Your task to perform on an android device: change the clock style Image 0: 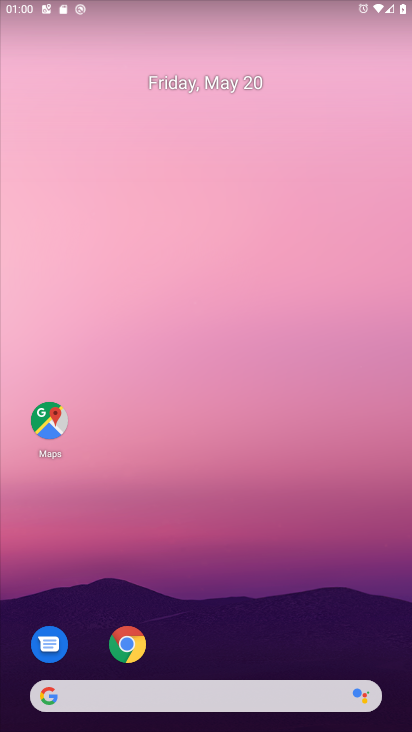
Step 0: drag from (212, 680) to (322, 297)
Your task to perform on an android device: change the clock style Image 1: 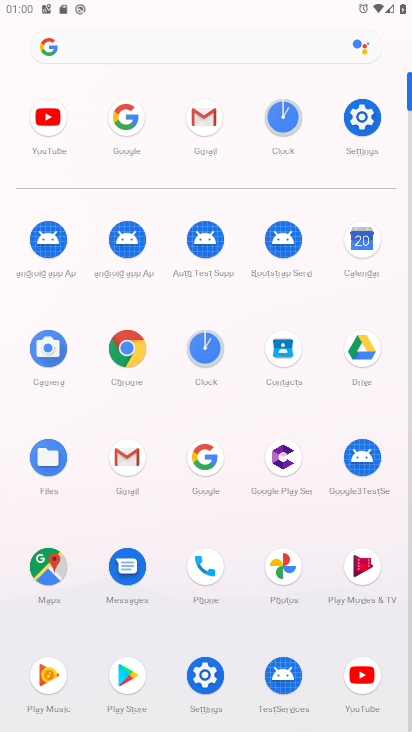
Step 1: click (284, 110)
Your task to perform on an android device: change the clock style Image 2: 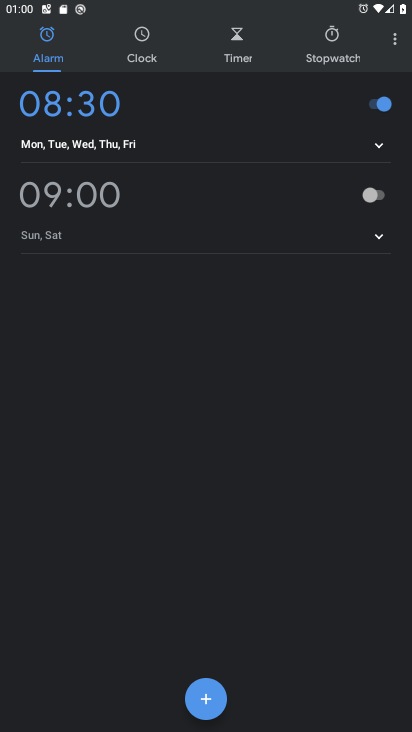
Step 2: click (393, 42)
Your task to perform on an android device: change the clock style Image 3: 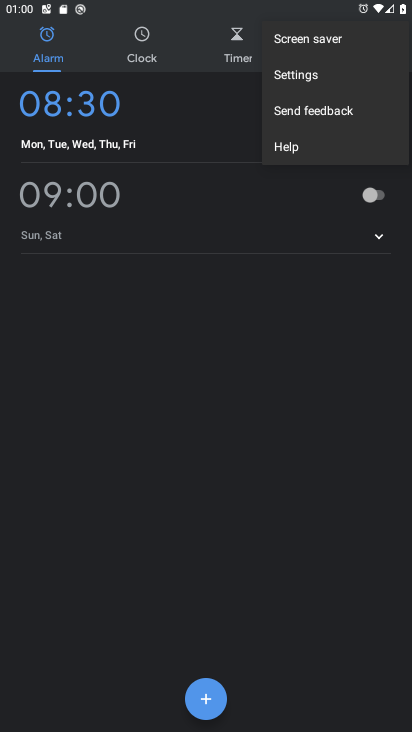
Step 3: click (298, 72)
Your task to perform on an android device: change the clock style Image 4: 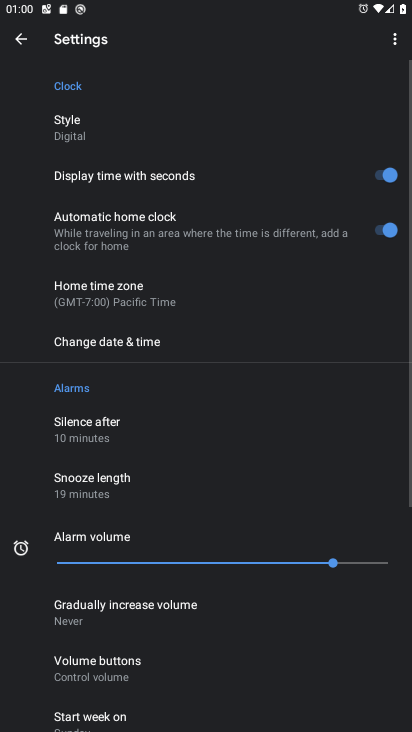
Step 4: click (100, 137)
Your task to perform on an android device: change the clock style Image 5: 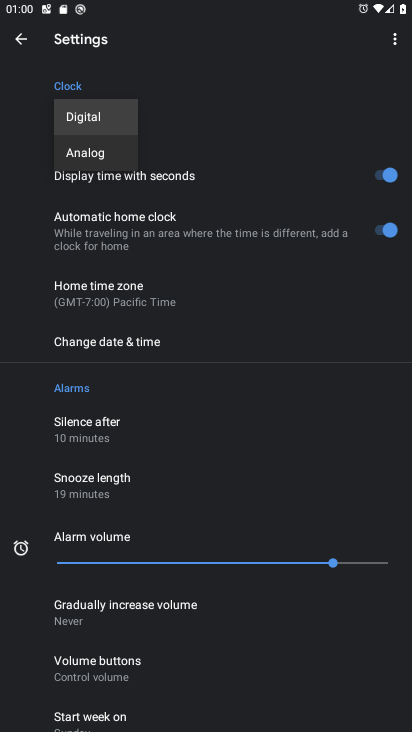
Step 5: click (115, 152)
Your task to perform on an android device: change the clock style Image 6: 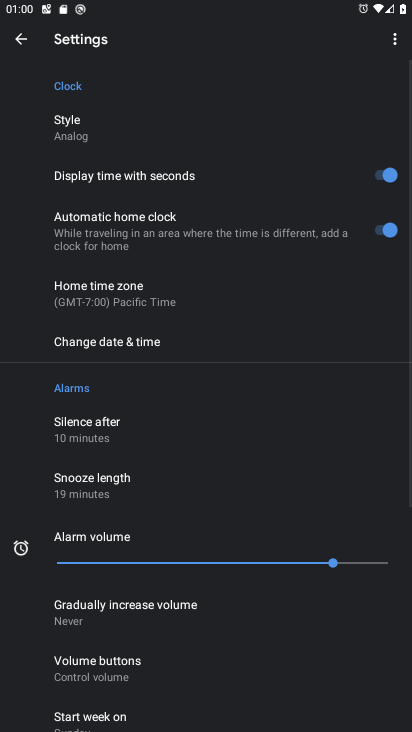
Step 6: task complete